Your task to perform on an android device: open a bookmark in the chrome app Image 0: 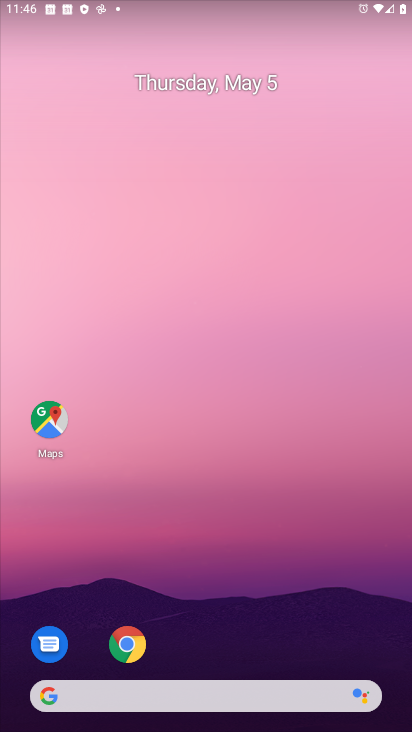
Step 0: drag from (199, 626) to (243, 306)
Your task to perform on an android device: open a bookmark in the chrome app Image 1: 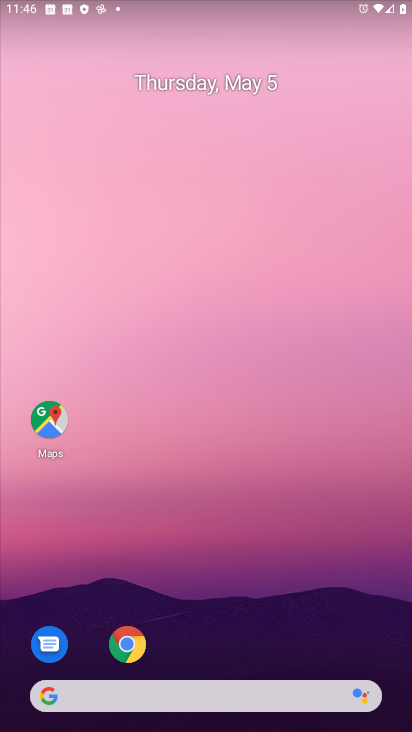
Step 1: drag from (184, 655) to (168, 339)
Your task to perform on an android device: open a bookmark in the chrome app Image 2: 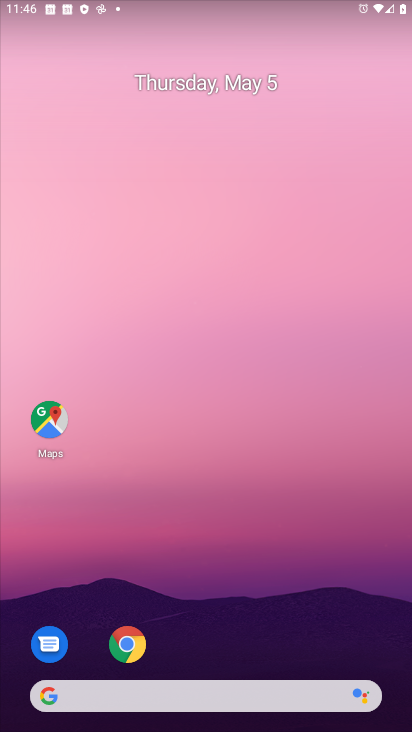
Step 2: drag from (206, 660) to (264, 241)
Your task to perform on an android device: open a bookmark in the chrome app Image 3: 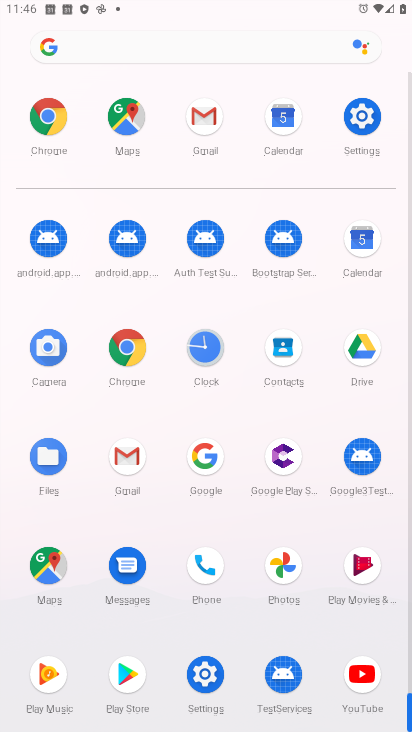
Step 3: drag from (236, 678) to (253, 317)
Your task to perform on an android device: open a bookmark in the chrome app Image 4: 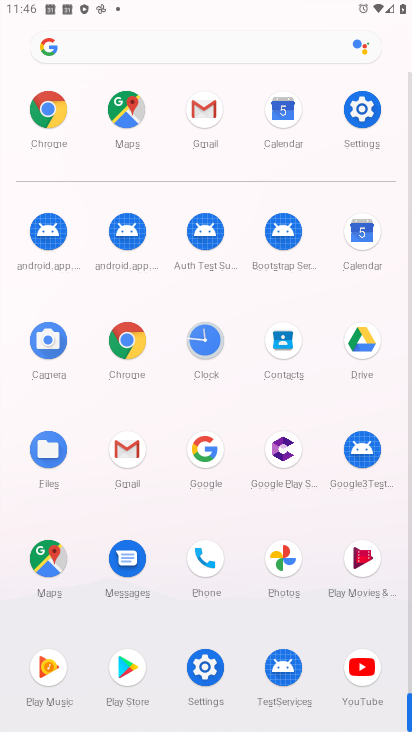
Step 4: click (128, 335)
Your task to perform on an android device: open a bookmark in the chrome app Image 5: 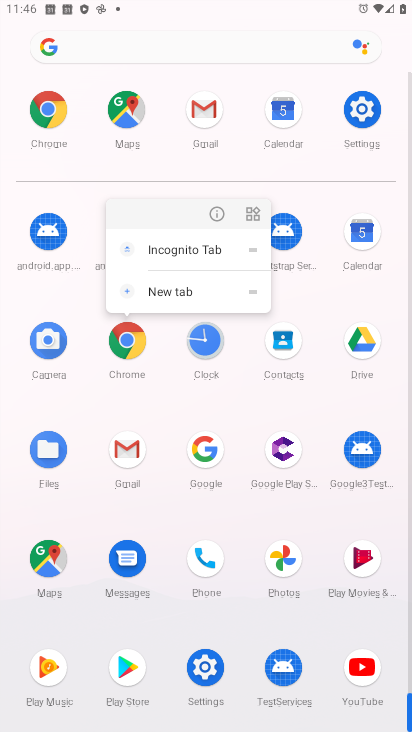
Step 5: click (217, 208)
Your task to perform on an android device: open a bookmark in the chrome app Image 6: 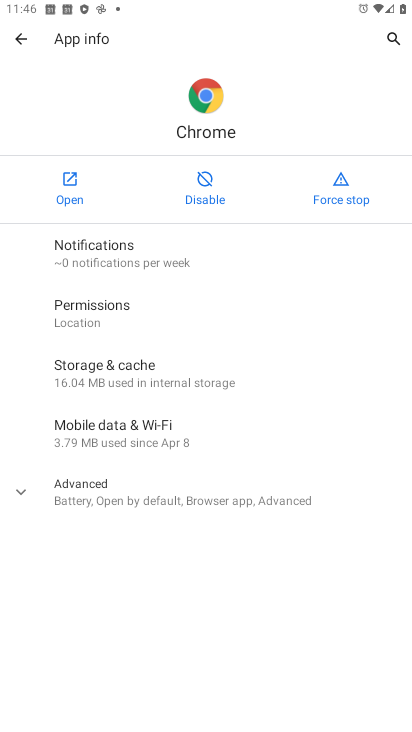
Step 6: click (74, 190)
Your task to perform on an android device: open a bookmark in the chrome app Image 7: 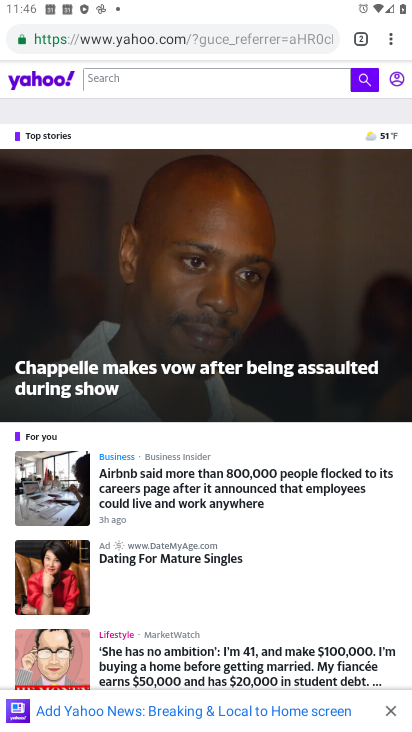
Step 7: drag from (213, 537) to (275, 90)
Your task to perform on an android device: open a bookmark in the chrome app Image 8: 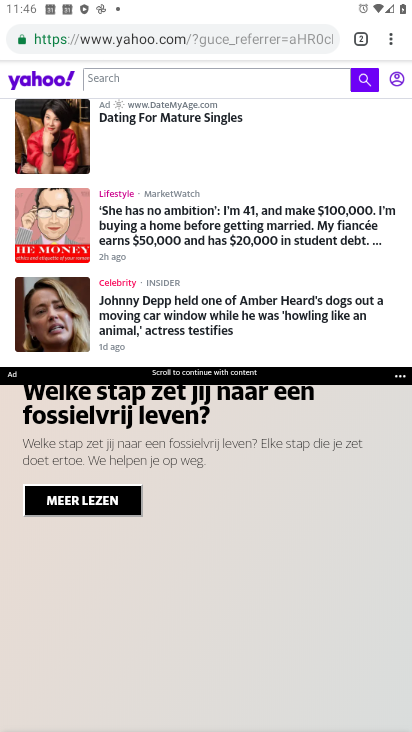
Step 8: drag from (236, 423) to (249, 261)
Your task to perform on an android device: open a bookmark in the chrome app Image 9: 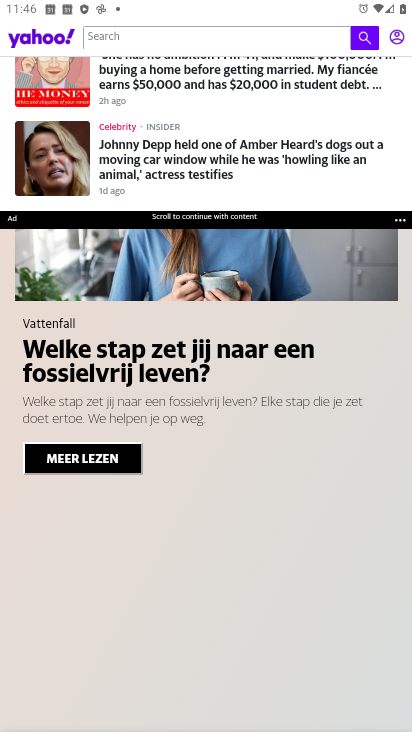
Step 9: drag from (223, 108) to (283, 577)
Your task to perform on an android device: open a bookmark in the chrome app Image 10: 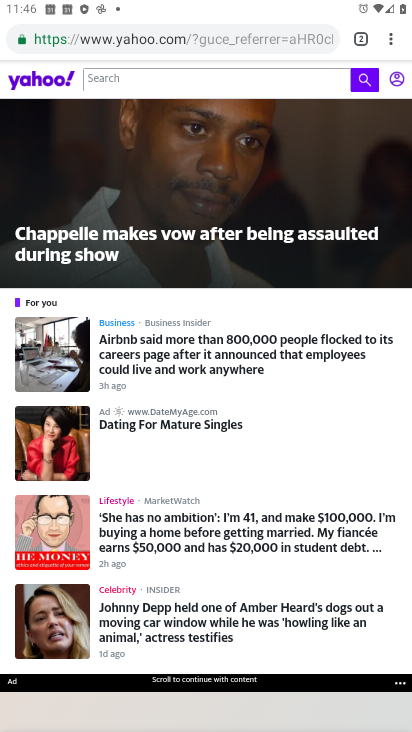
Step 10: drag from (238, 251) to (320, 555)
Your task to perform on an android device: open a bookmark in the chrome app Image 11: 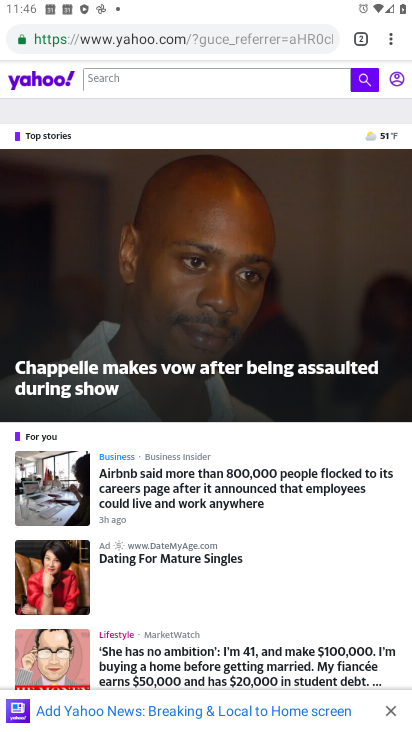
Step 11: click (177, 43)
Your task to perform on an android device: open a bookmark in the chrome app Image 12: 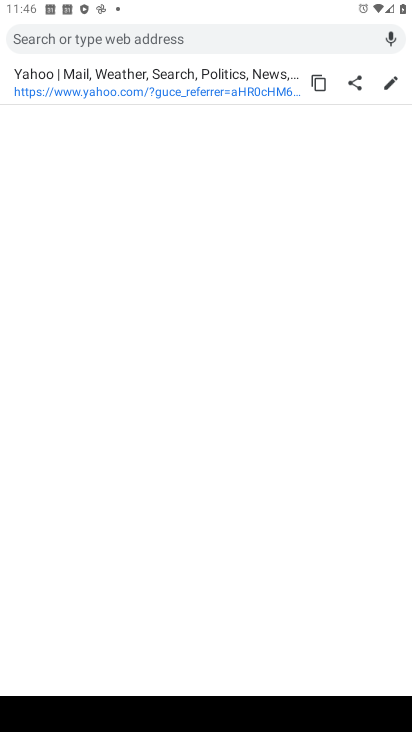
Step 12: press back button
Your task to perform on an android device: open a bookmark in the chrome app Image 13: 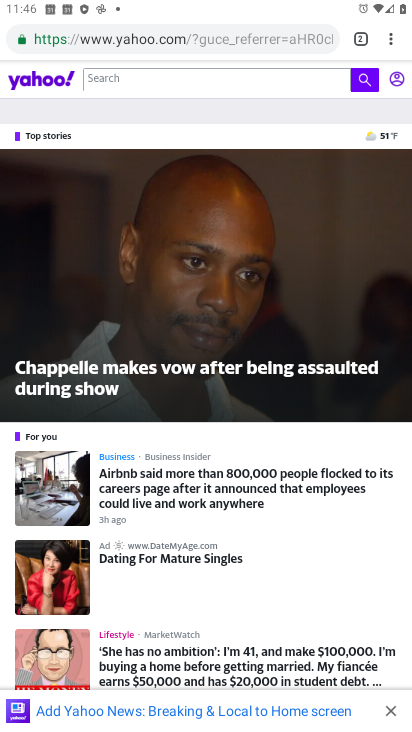
Step 13: click (389, 31)
Your task to perform on an android device: open a bookmark in the chrome app Image 14: 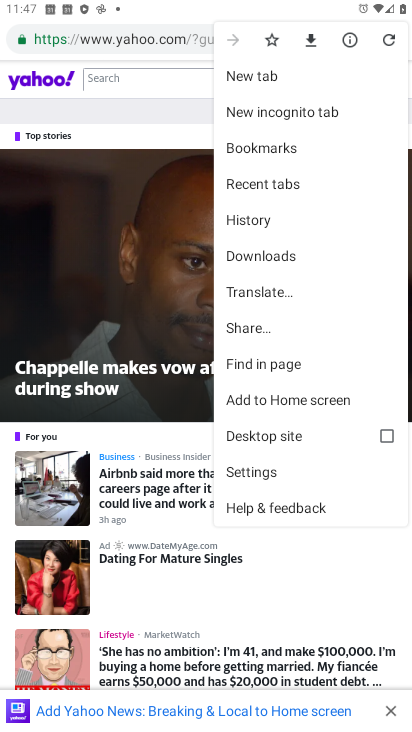
Step 14: click (293, 151)
Your task to perform on an android device: open a bookmark in the chrome app Image 15: 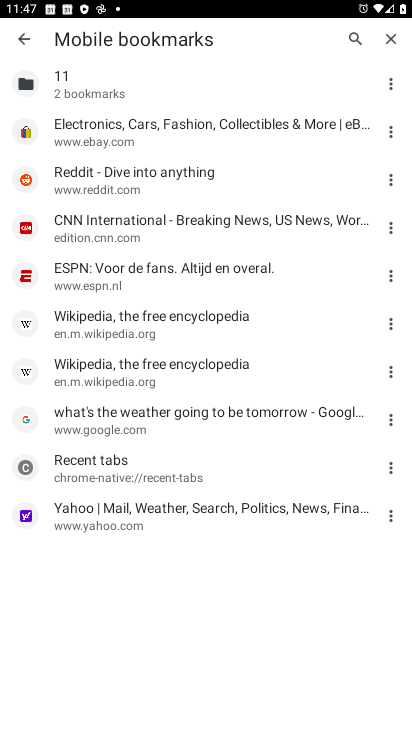
Step 15: task complete